Your task to perform on an android device: find which apps use the phone's location Image 0: 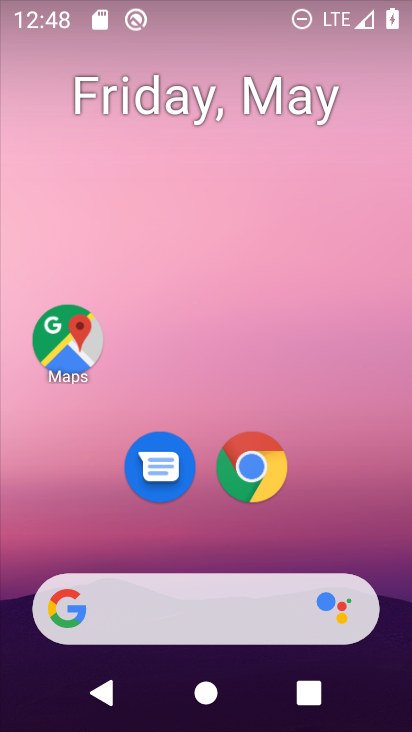
Step 0: drag from (352, 649) to (310, 143)
Your task to perform on an android device: find which apps use the phone's location Image 1: 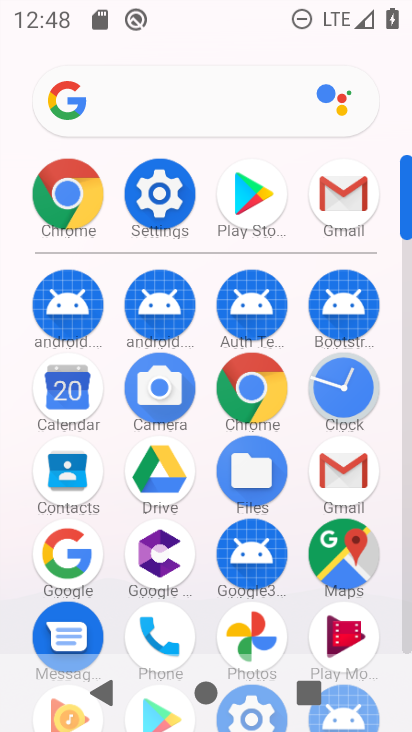
Step 1: click (173, 190)
Your task to perform on an android device: find which apps use the phone's location Image 2: 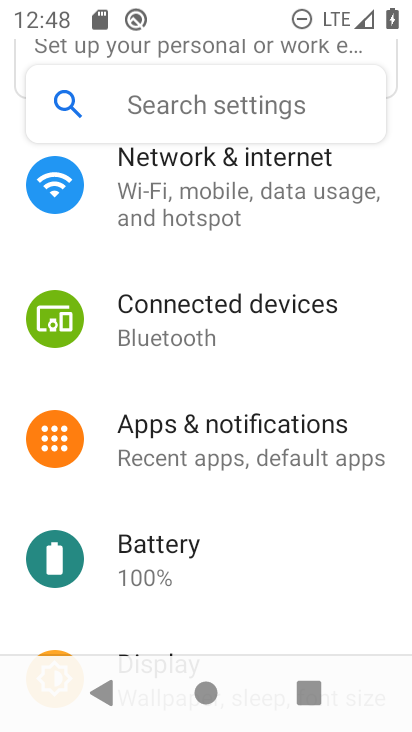
Step 2: drag from (215, 240) to (211, 2)
Your task to perform on an android device: find which apps use the phone's location Image 3: 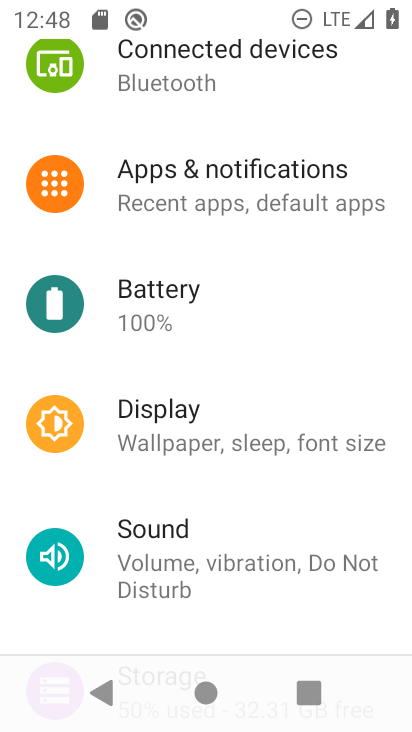
Step 3: drag from (202, 524) to (194, 106)
Your task to perform on an android device: find which apps use the phone's location Image 4: 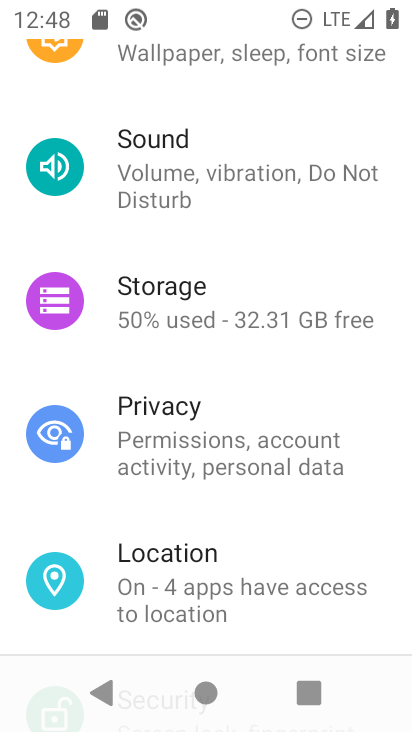
Step 4: click (160, 604)
Your task to perform on an android device: find which apps use the phone's location Image 5: 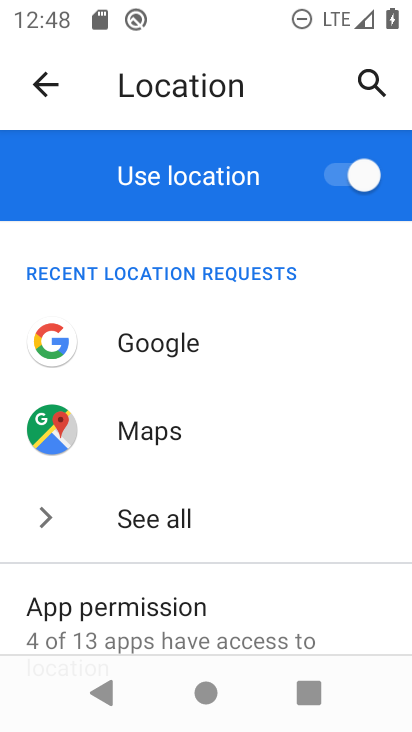
Step 5: drag from (238, 577) to (202, 257)
Your task to perform on an android device: find which apps use the phone's location Image 6: 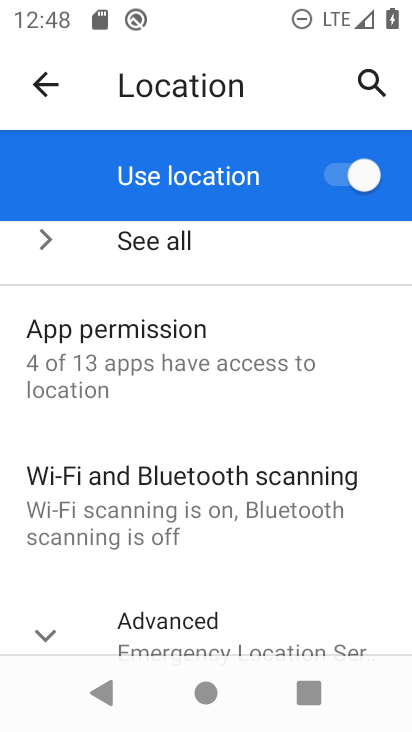
Step 6: click (190, 353)
Your task to perform on an android device: find which apps use the phone's location Image 7: 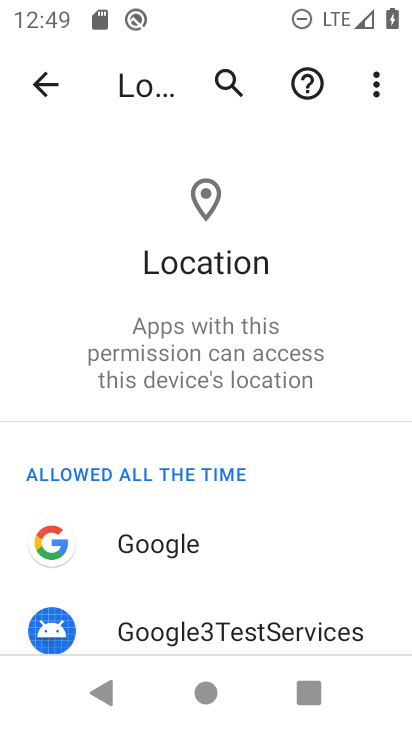
Step 7: task complete